Your task to perform on an android device: change notification settings in the gmail app Image 0: 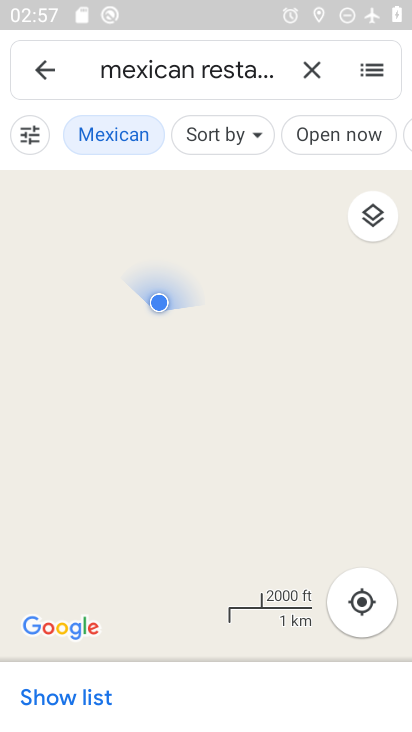
Step 0: press home button
Your task to perform on an android device: change notification settings in the gmail app Image 1: 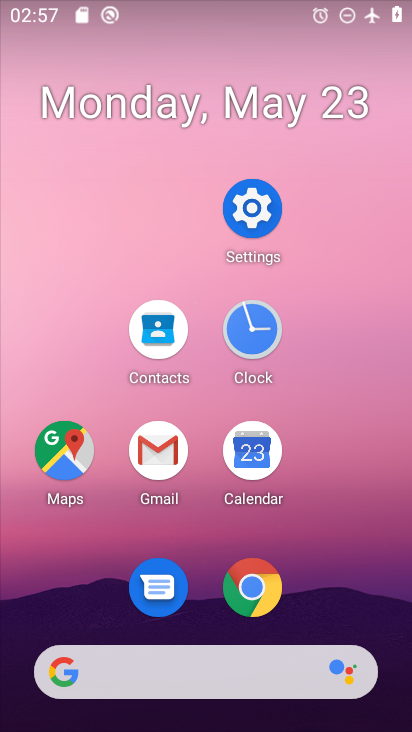
Step 1: click (255, 225)
Your task to perform on an android device: change notification settings in the gmail app Image 2: 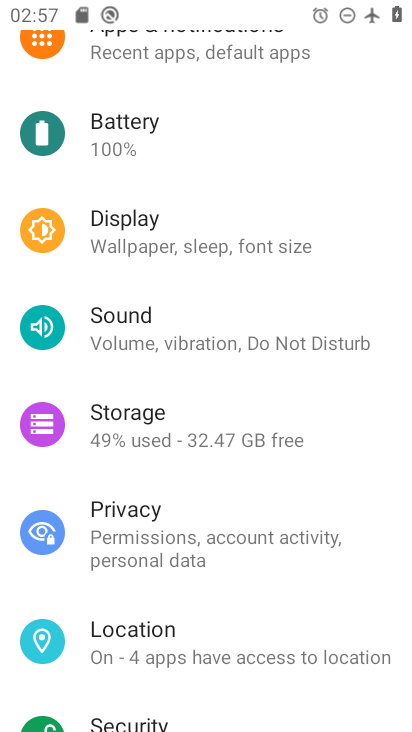
Step 2: press home button
Your task to perform on an android device: change notification settings in the gmail app Image 3: 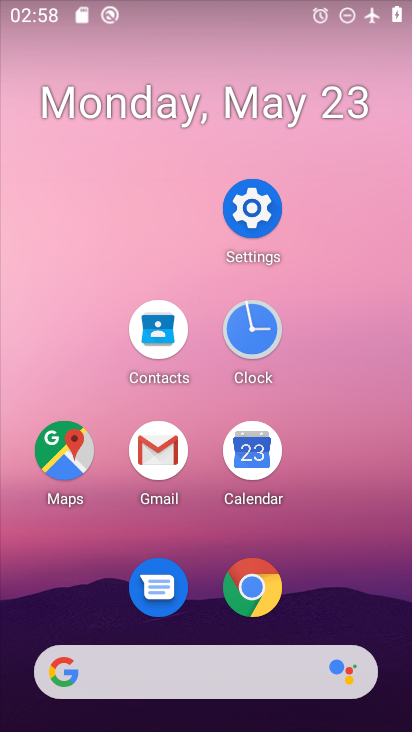
Step 3: click (158, 468)
Your task to perform on an android device: change notification settings in the gmail app Image 4: 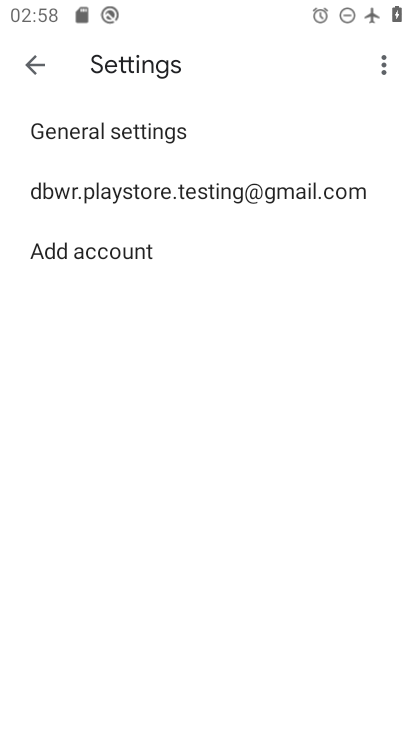
Step 4: click (114, 155)
Your task to perform on an android device: change notification settings in the gmail app Image 5: 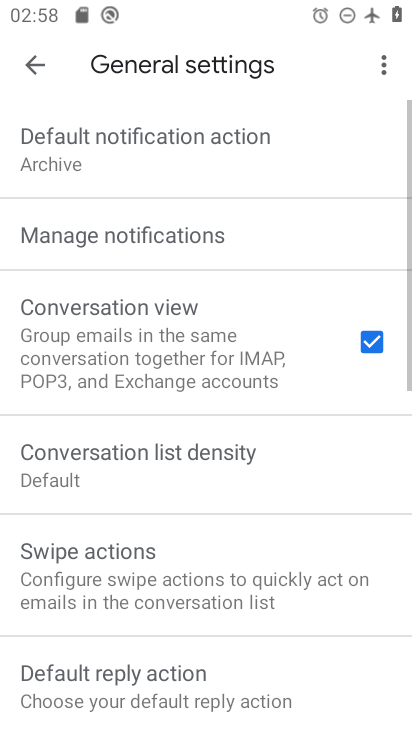
Step 5: click (157, 226)
Your task to perform on an android device: change notification settings in the gmail app Image 6: 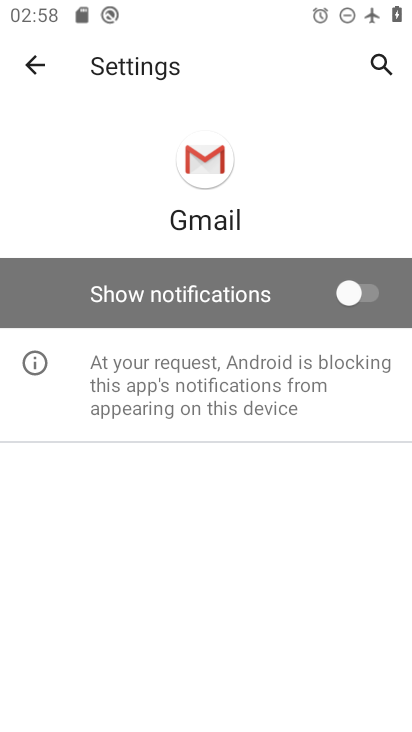
Step 6: click (317, 264)
Your task to perform on an android device: change notification settings in the gmail app Image 7: 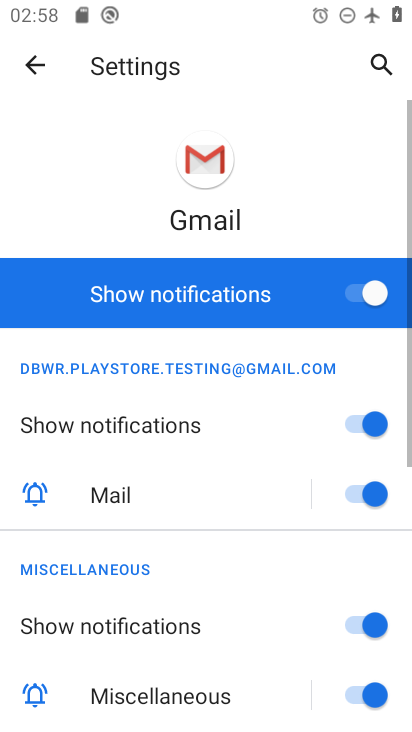
Step 7: task complete